Your task to perform on an android device: check android version Image 0: 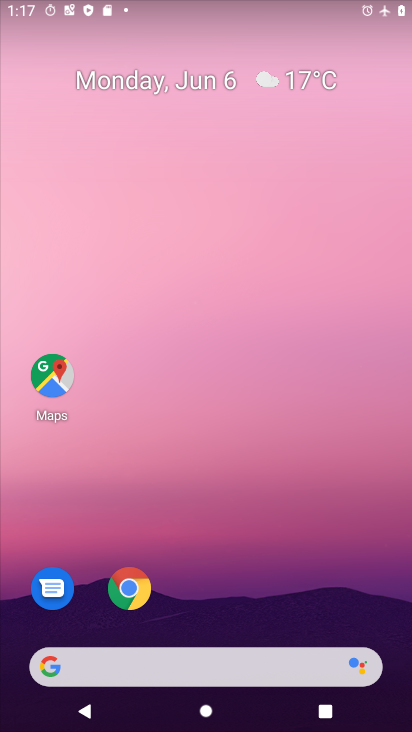
Step 0: drag from (300, 537) to (238, 70)
Your task to perform on an android device: check android version Image 1: 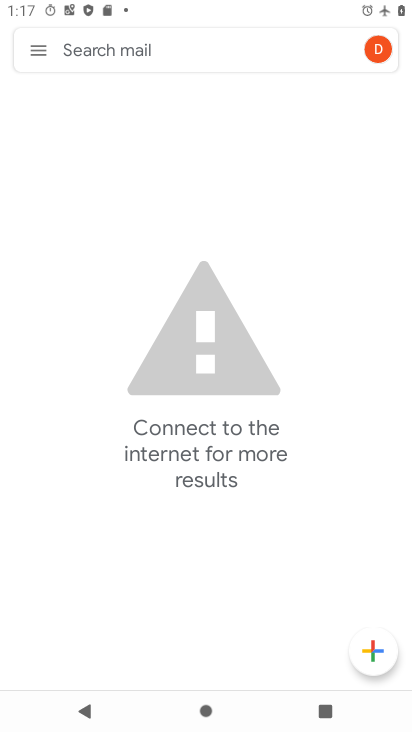
Step 1: press home button
Your task to perform on an android device: check android version Image 2: 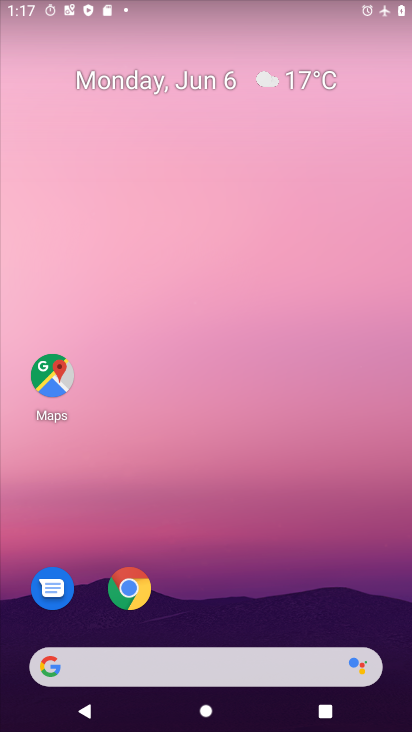
Step 2: drag from (300, 550) to (130, 1)
Your task to perform on an android device: check android version Image 3: 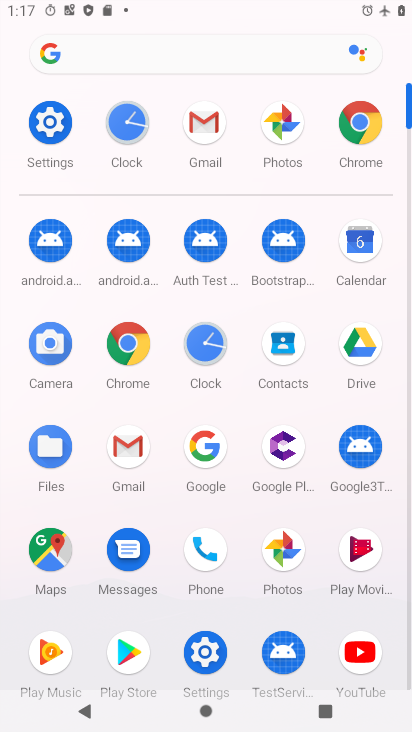
Step 3: click (41, 121)
Your task to perform on an android device: check android version Image 4: 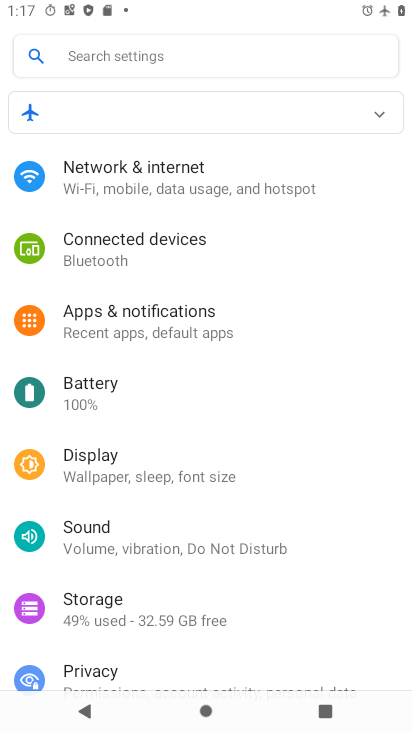
Step 4: drag from (272, 577) to (213, 0)
Your task to perform on an android device: check android version Image 5: 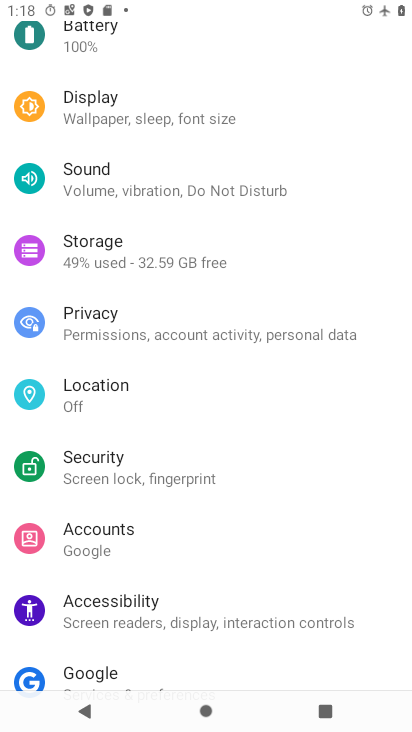
Step 5: drag from (218, 422) to (250, 9)
Your task to perform on an android device: check android version Image 6: 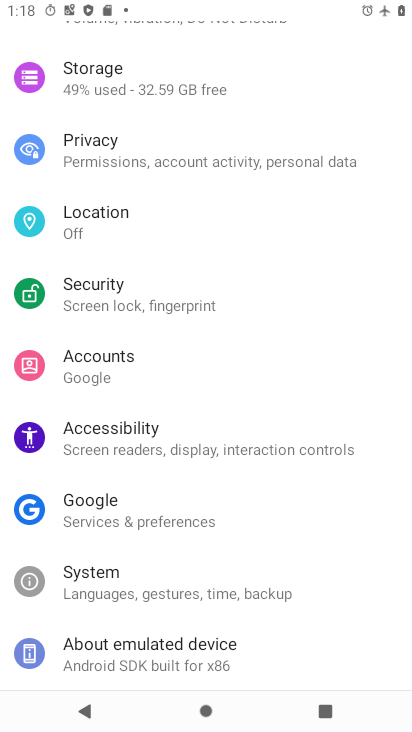
Step 6: drag from (272, 472) to (316, 67)
Your task to perform on an android device: check android version Image 7: 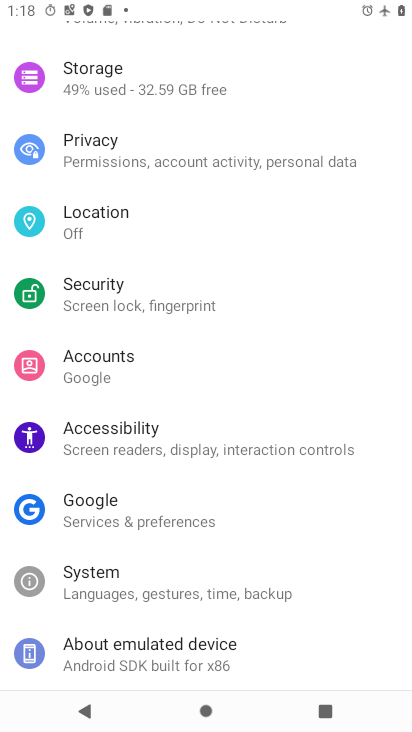
Step 7: drag from (231, 487) to (213, 168)
Your task to perform on an android device: check android version Image 8: 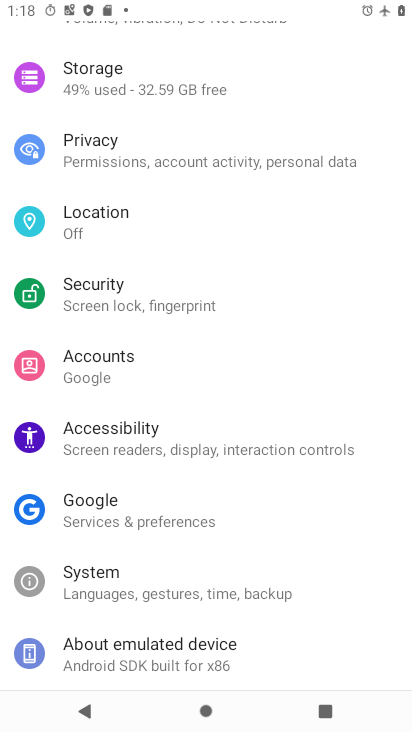
Step 8: click (180, 680)
Your task to perform on an android device: check android version Image 9: 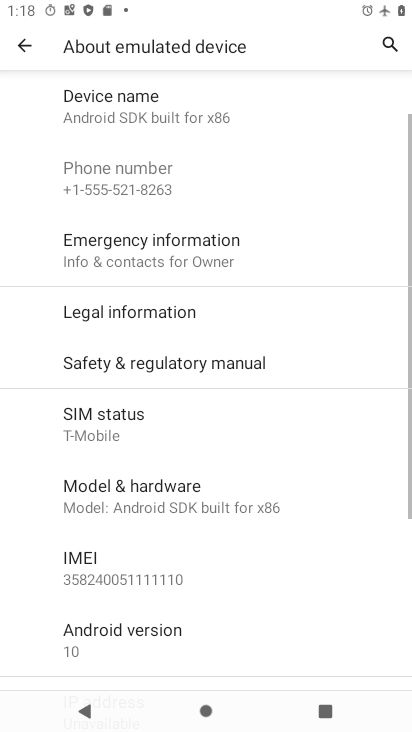
Step 9: drag from (196, 551) to (183, 178)
Your task to perform on an android device: check android version Image 10: 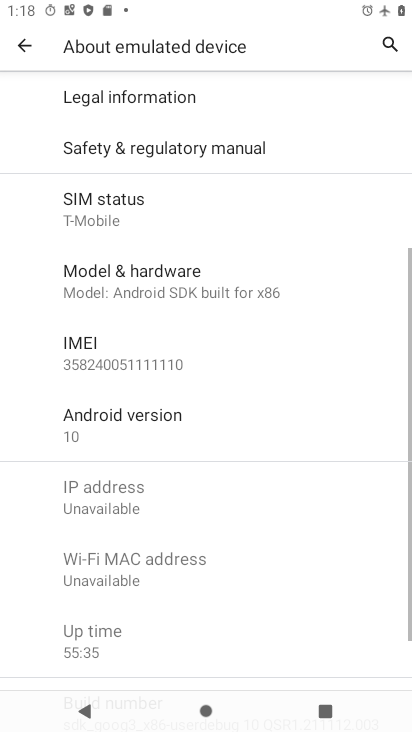
Step 10: click (183, 413)
Your task to perform on an android device: check android version Image 11: 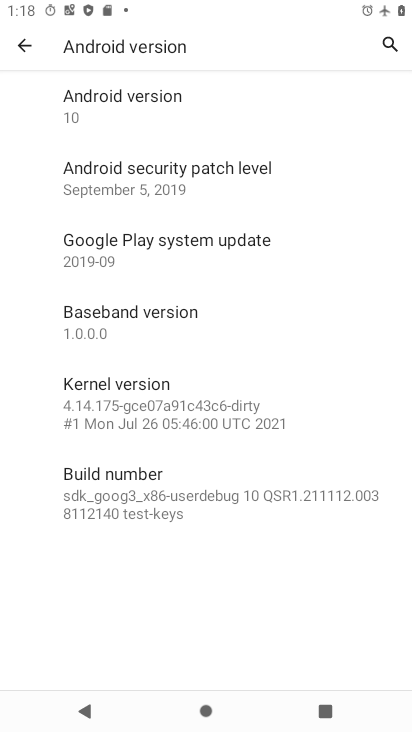
Step 11: task complete